Your task to perform on an android device: turn off javascript in the chrome app Image 0: 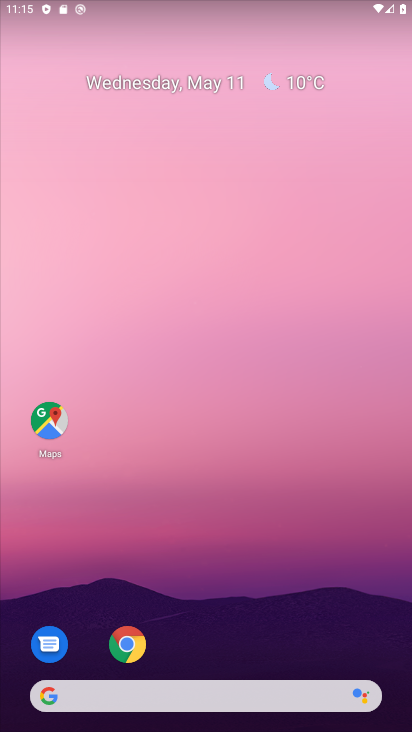
Step 0: drag from (353, 612) to (348, 62)
Your task to perform on an android device: turn off javascript in the chrome app Image 1: 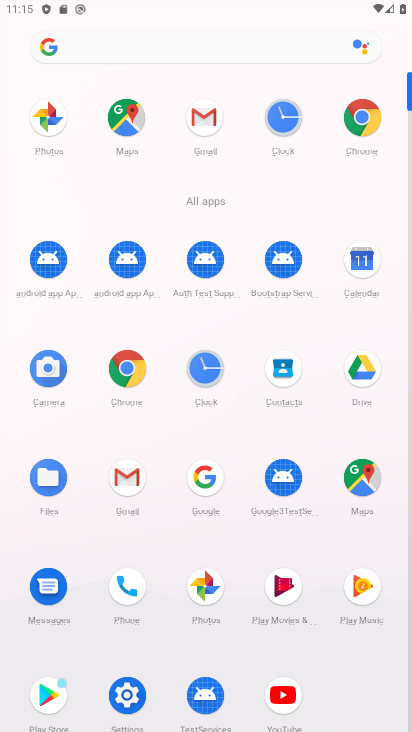
Step 1: click (348, 127)
Your task to perform on an android device: turn off javascript in the chrome app Image 2: 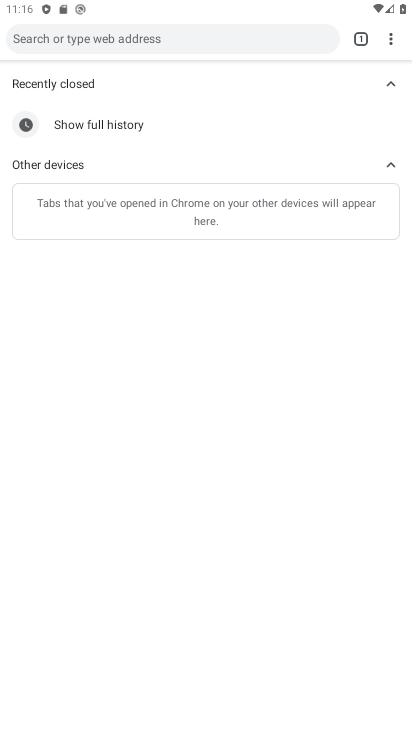
Step 2: drag from (388, 32) to (259, 330)
Your task to perform on an android device: turn off javascript in the chrome app Image 3: 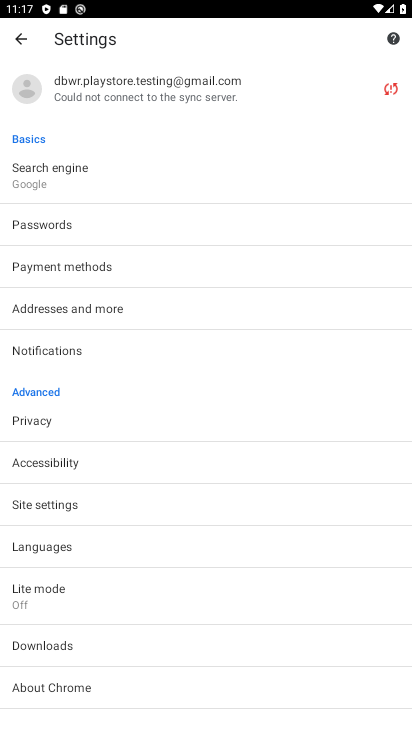
Step 3: click (69, 507)
Your task to perform on an android device: turn off javascript in the chrome app Image 4: 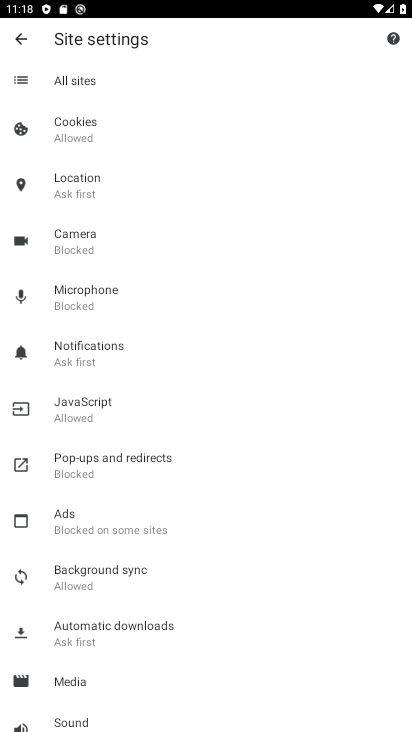
Step 4: click (62, 404)
Your task to perform on an android device: turn off javascript in the chrome app Image 5: 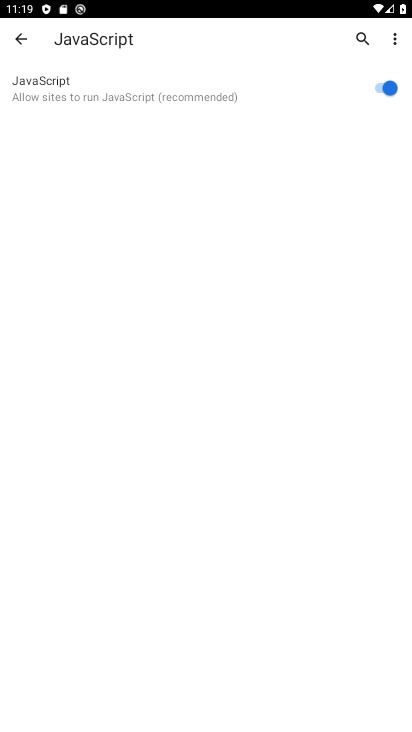
Step 5: click (379, 85)
Your task to perform on an android device: turn off javascript in the chrome app Image 6: 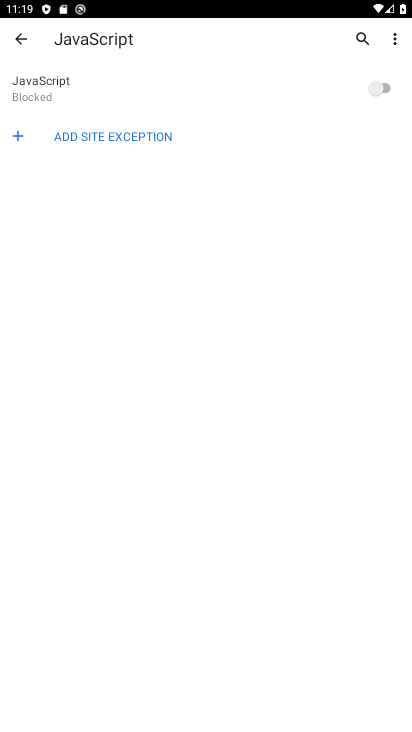
Step 6: task complete